Your task to perform on an android device: see tabs open on other devices in the chrome app Image 0: 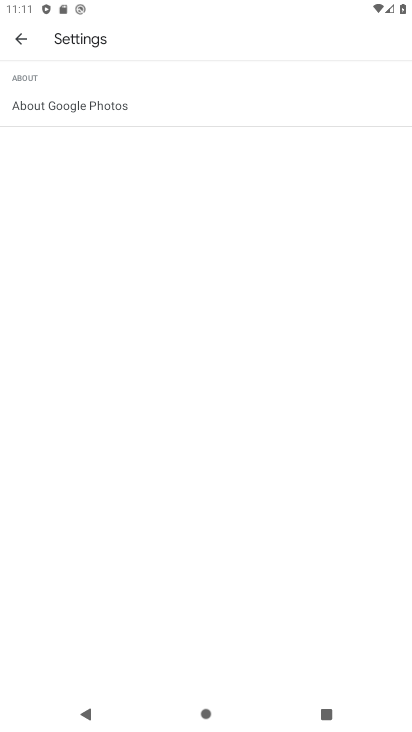
Step 0: press home button
Your task to perform on an android device: see tabs open on other devices in the chrome app Image 1: 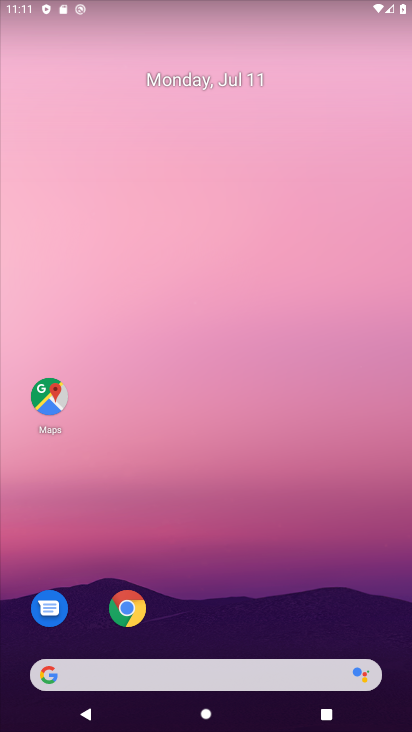
Step 1: click (125, 595)
Your task to perform on an android device: see tabs open on other devices in the chrome app Image 2: 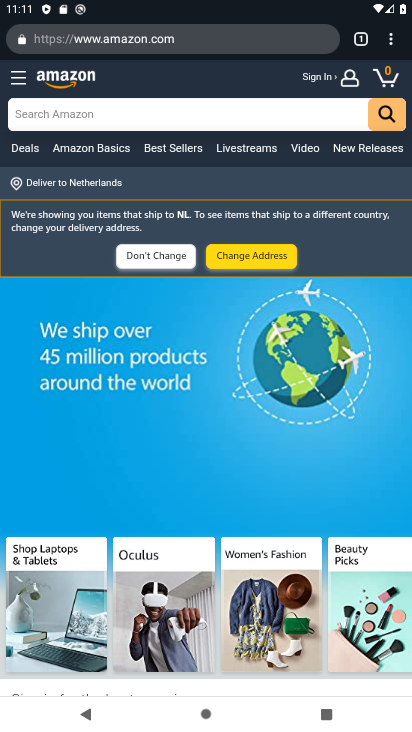
Step 2: click (388, 50)
Your task to perform on an android device: see tabs open on other devices in the chrome app Image 3: 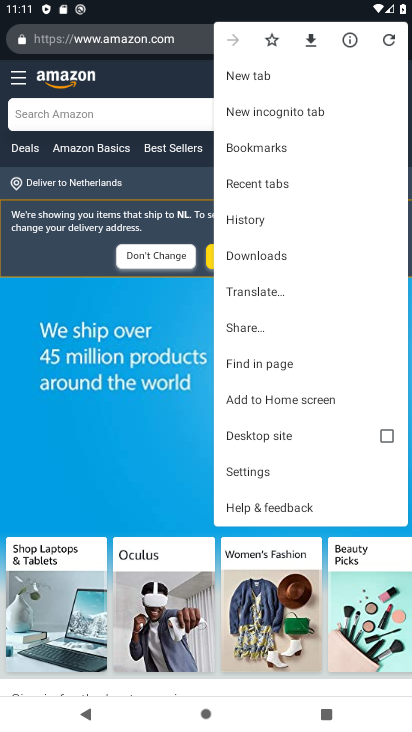
Step 3: click (284, 183)
Your task to perform on an android device: see tabs open on other devices in the chrome app Image 4: 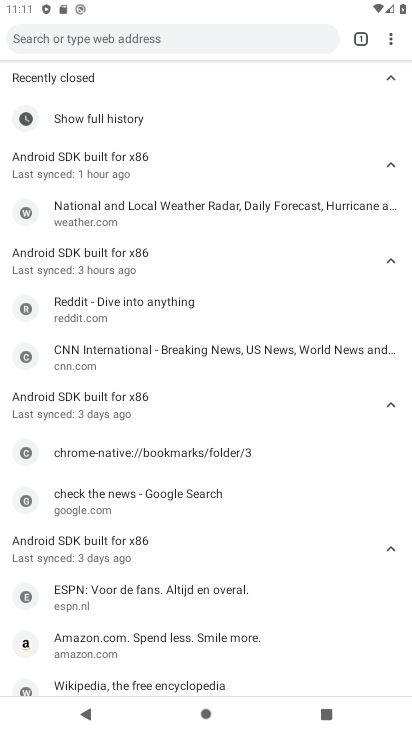
Step 4: task complete